Your task to perform on an android device: turn on wifi Image 0: 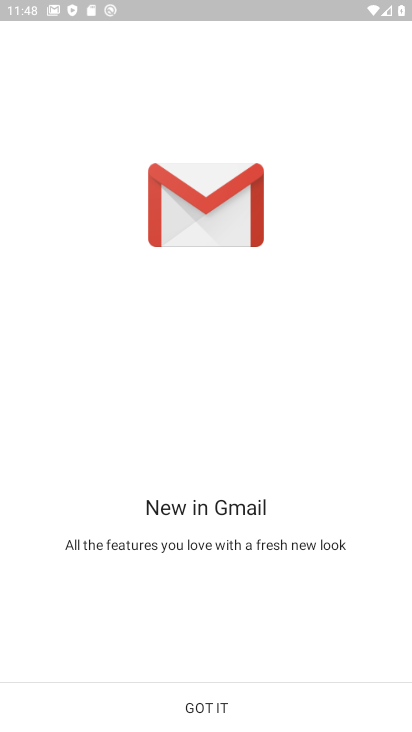
Step 0: press home button
Your task to perform on an android device: turn on wifi Image 1: 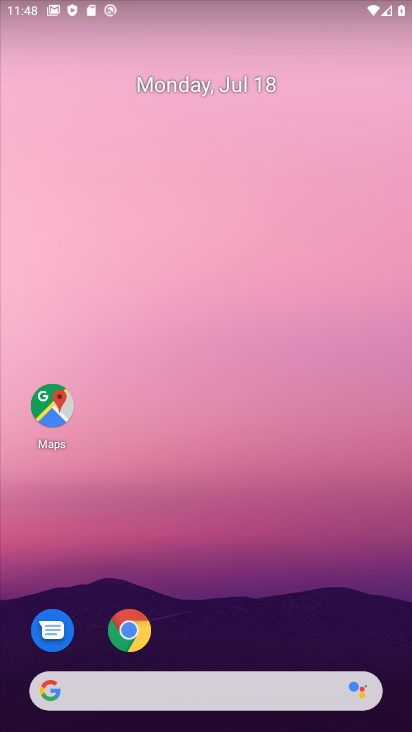
Step 1: task complete